Your task to perform on an android device: Show me the alarms in the clock app Image 0: 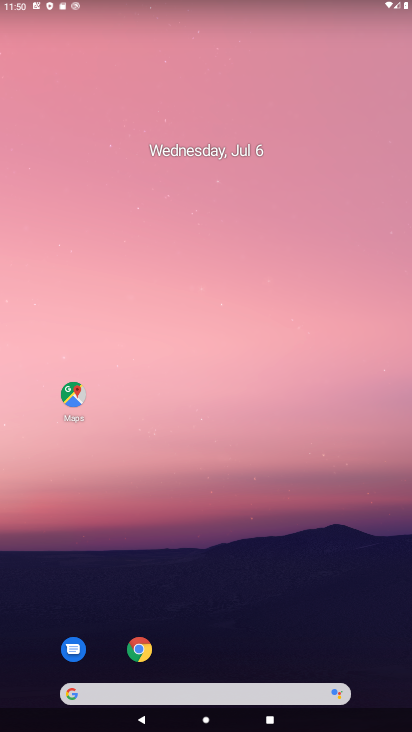
Step 0: drag from (257, 146) to (377, 57)
Your task to perform on an android device: Show me the alarms in the clock app Image 1: 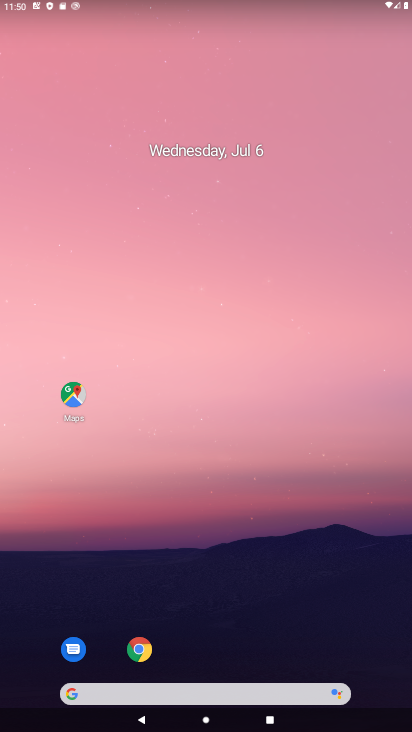
Step 1: drag from (222, 390) to (326, 85)
Your task to perform on an android device: Show me the alarms in the clock app Image 2: 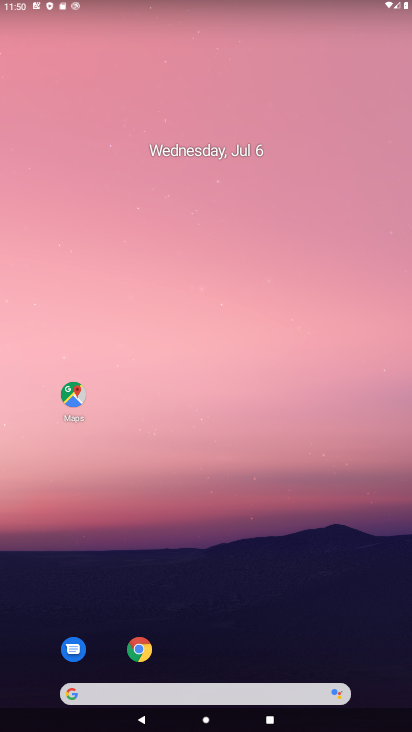
Step 2: drag from (18, 681) to (318, 76)
Your task to perform on an android device: Show me the alarms in the clock app Image 3: 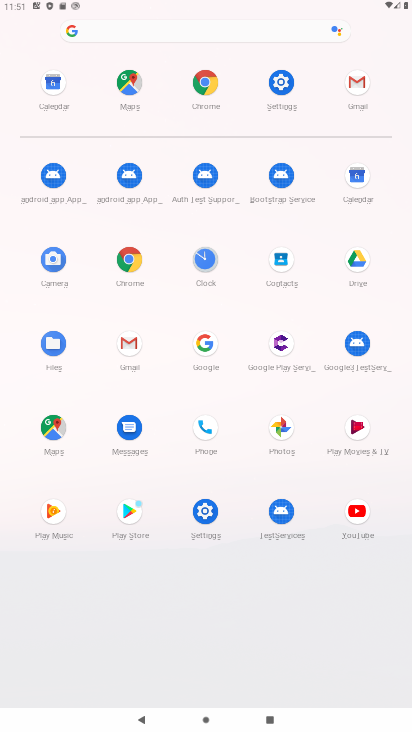
Step 3: click (211, 258)
Your task to perform on an android device: Show me the alarms in the clock app Image 4: 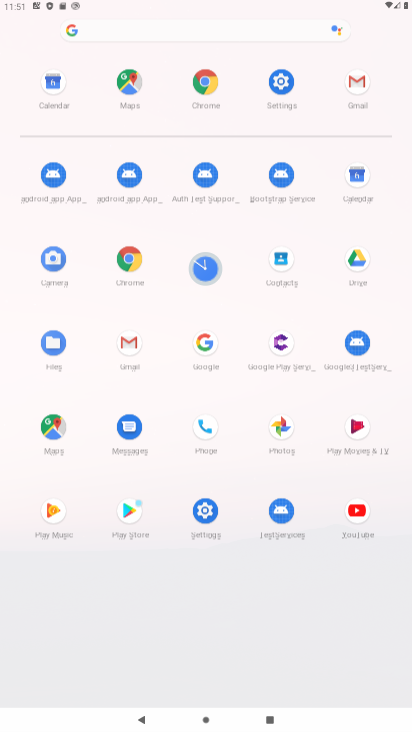
Step 4: click (199, 258)
Your task to perform on an android device: Show me the alarms in the clock app Image 5: 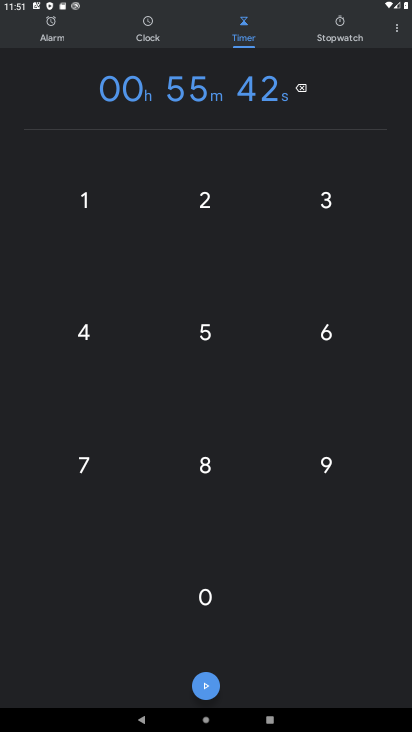
Step 5: click (56, 27)
Your task to perform on an android device: Show me the alarms in the clock app Image 6: 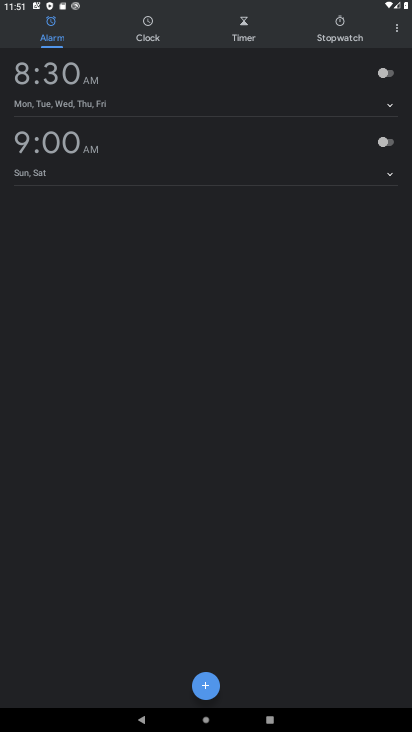
Step 6: task complete